Your task to perform on an android device: clear history in the chrome app Image 0: 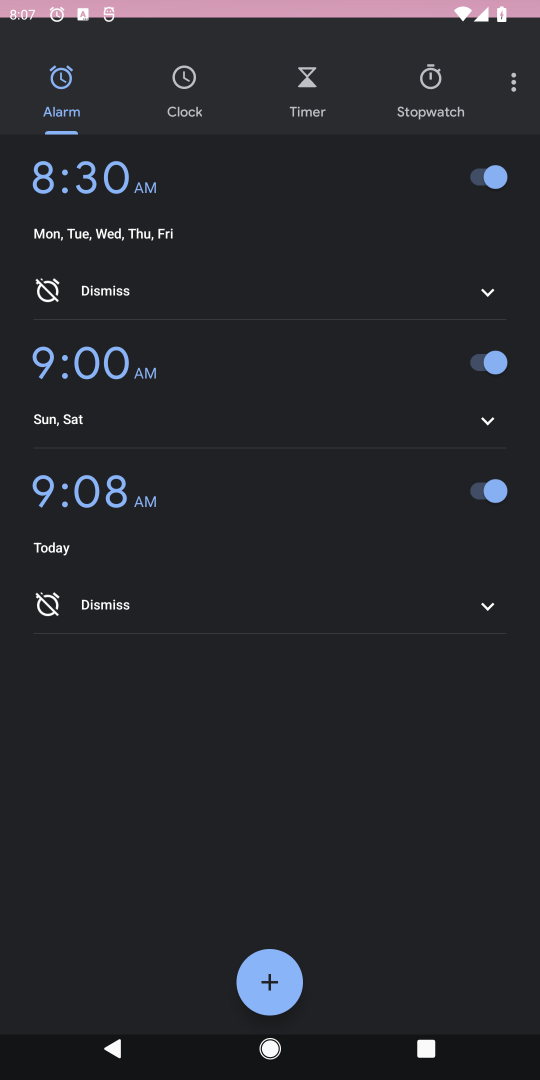
Step 0: press home button
Your task to perform on an android device: clear history in the chrome app Image 1: 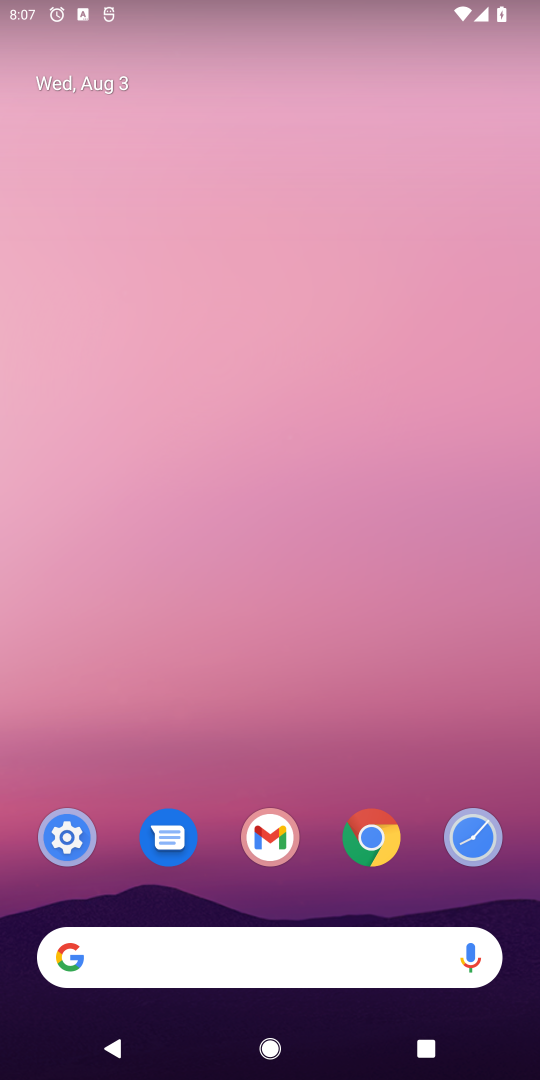
Step 1: click (368, 850)
Your task to perform on an android device: clear history in the chrome app Image 2: 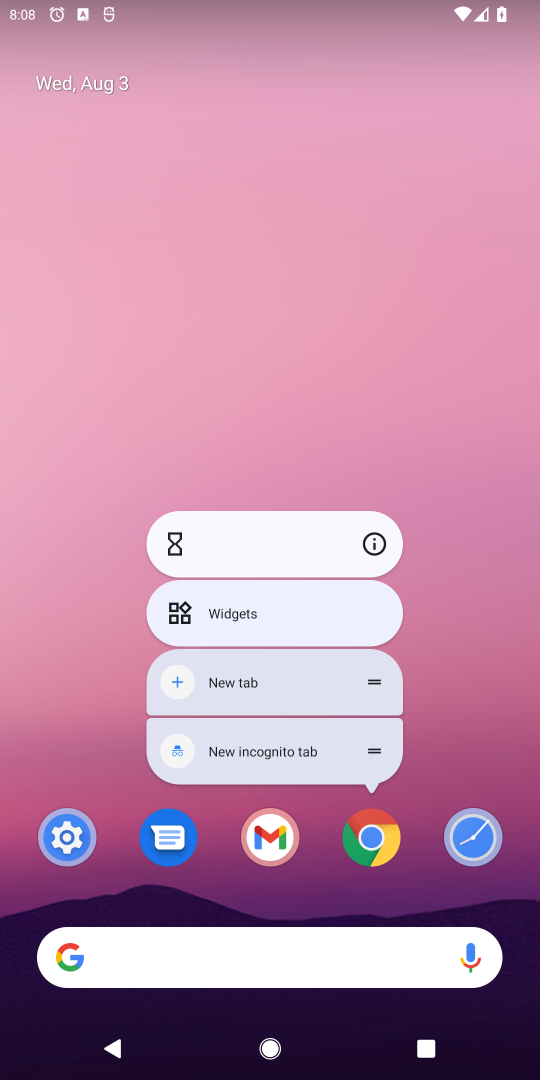
Step 2: click (377, 851)
Your task to perform on an android device: clear history in the chrome app Image 3: 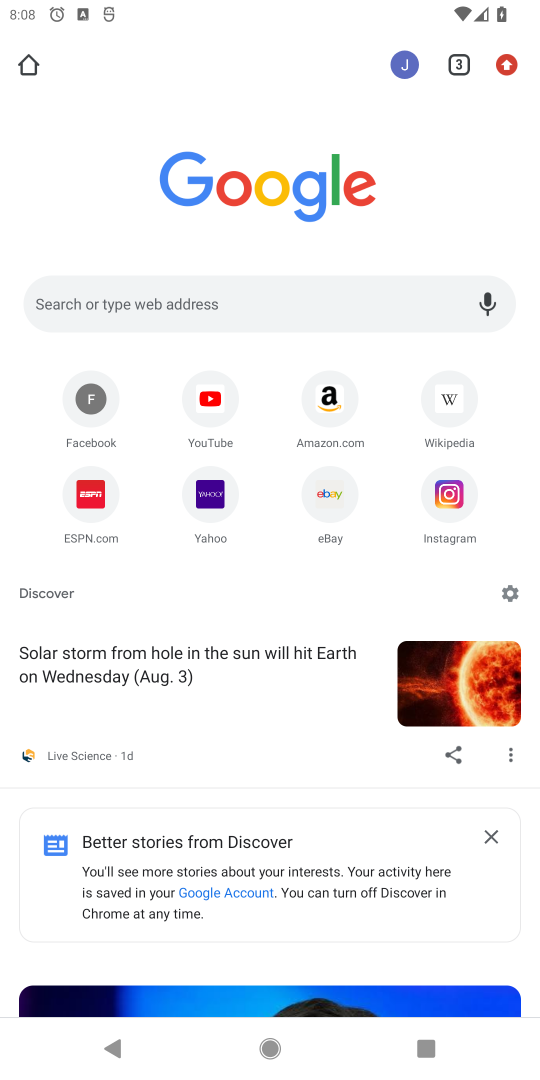
Step 3: click (506, 62)
Your task to perform on an android device: clear history in the chrome app Image 4: 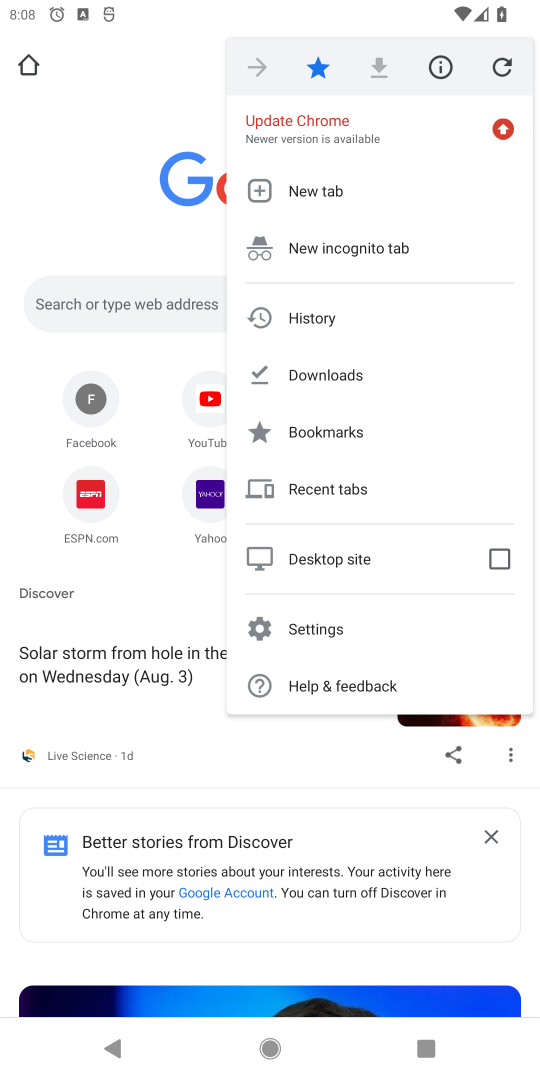
Step 4: click (309, 315)
Your task to perform on an android device: clear history in the chrome app Image 5: 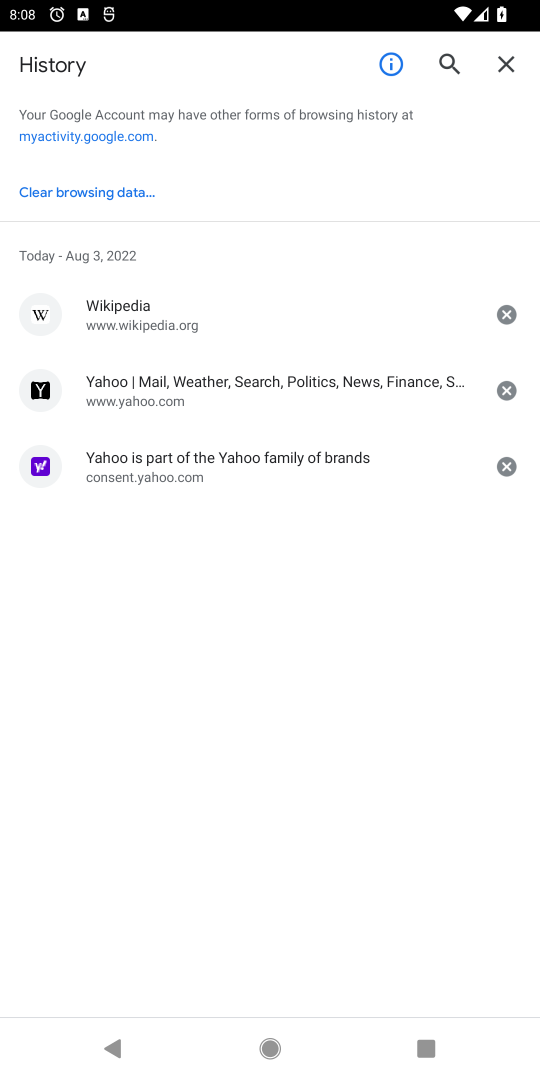
Step 5: click (104, 194)
Your task to perform on an android device: clear history in the chrome app Image 6: 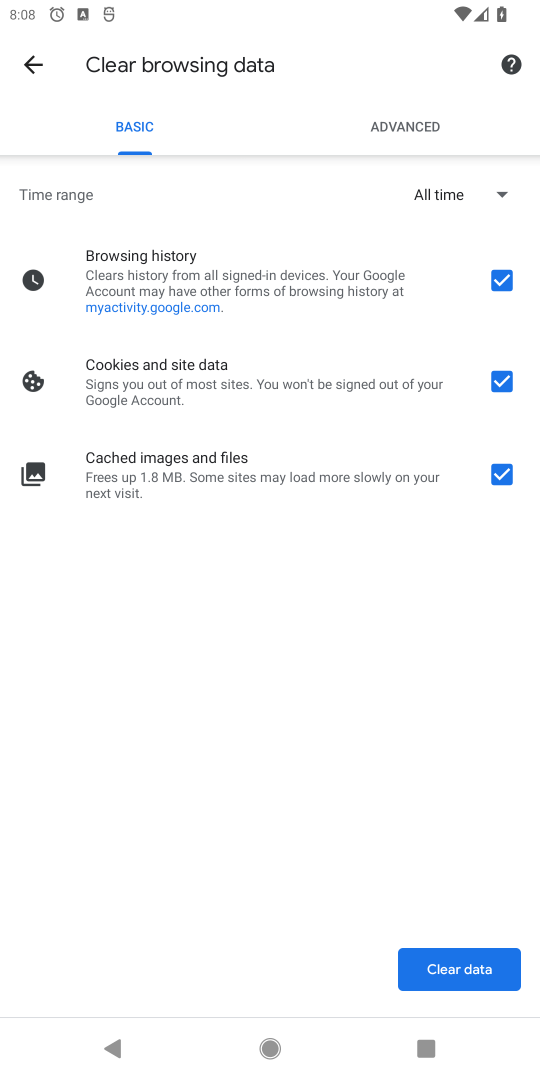
Step 6: click (467, 965)
Your task to perform on an android device: clear history in the chrome app Image 7: 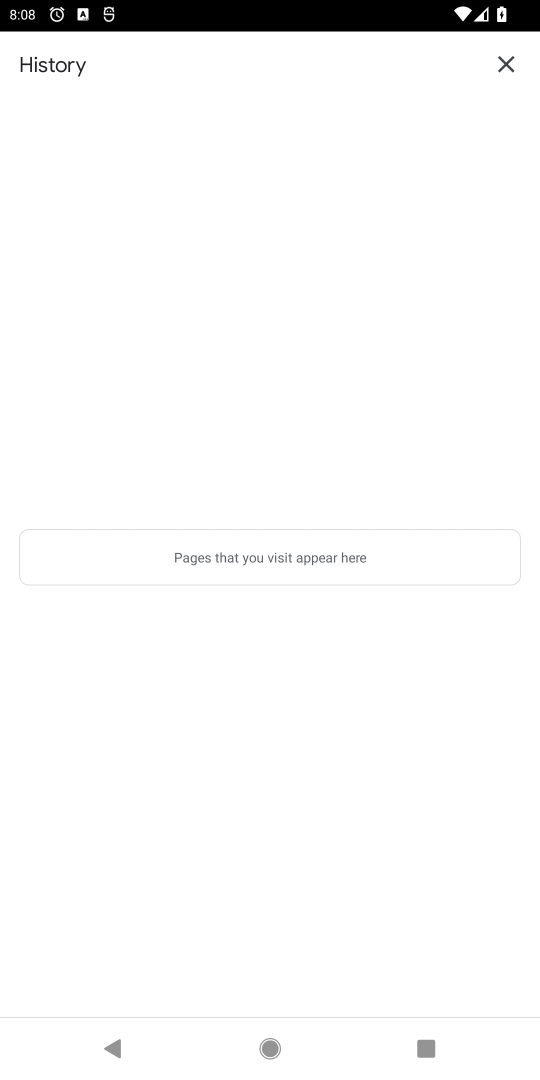
Step 7: task complete